Your task to perform on an android device: What's the weather going to be tomorrow? Image 0: 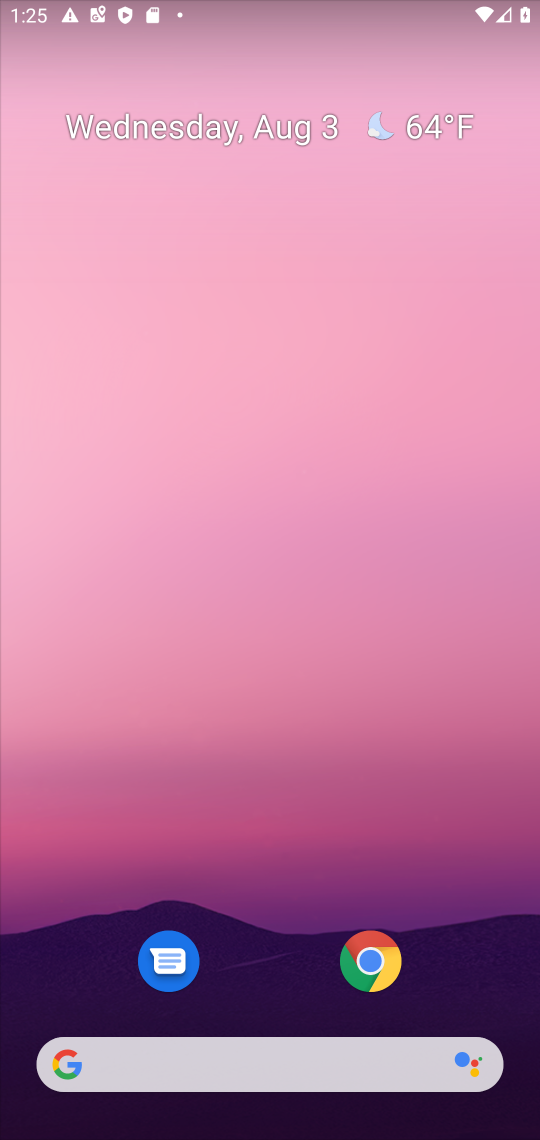
Step 0: click (214, 1058)
Your task to perform on an android device: What's the weather going to be tomorrow? Image 1: 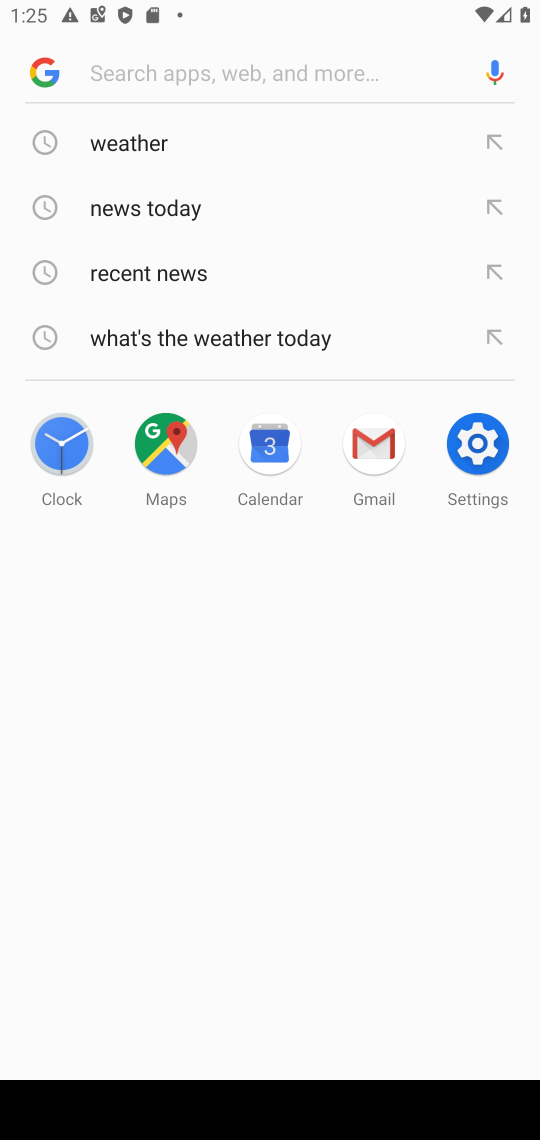
Step 1: click (115, 146)
Your task to perform on an android device: What's the weather going to be tomorrow? Image 2: 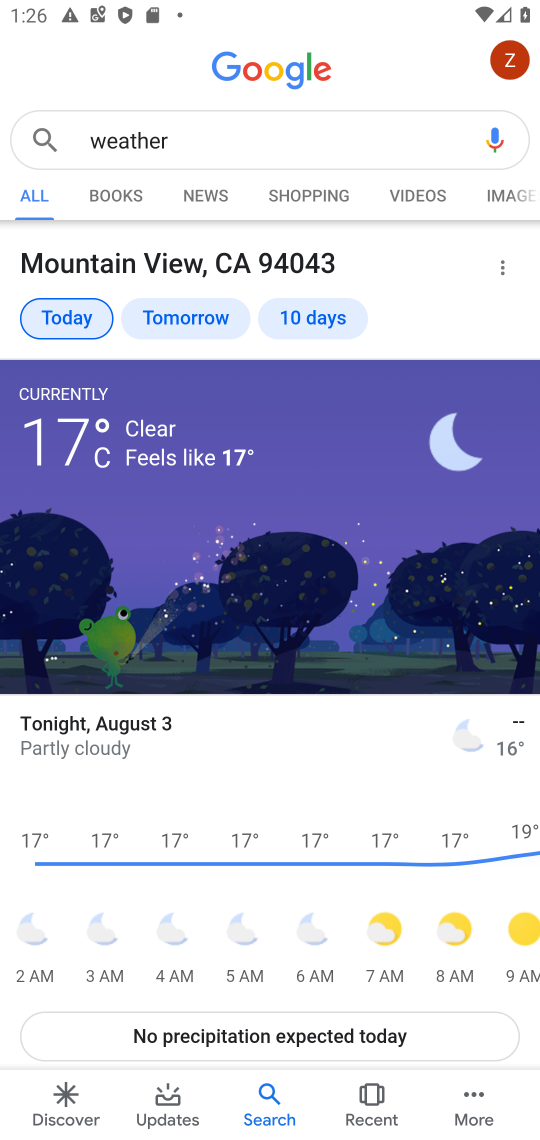
Step 2: click (180, 328)
Your task to perform on an android device: What's the weather going to be tomorrow? Image 3: 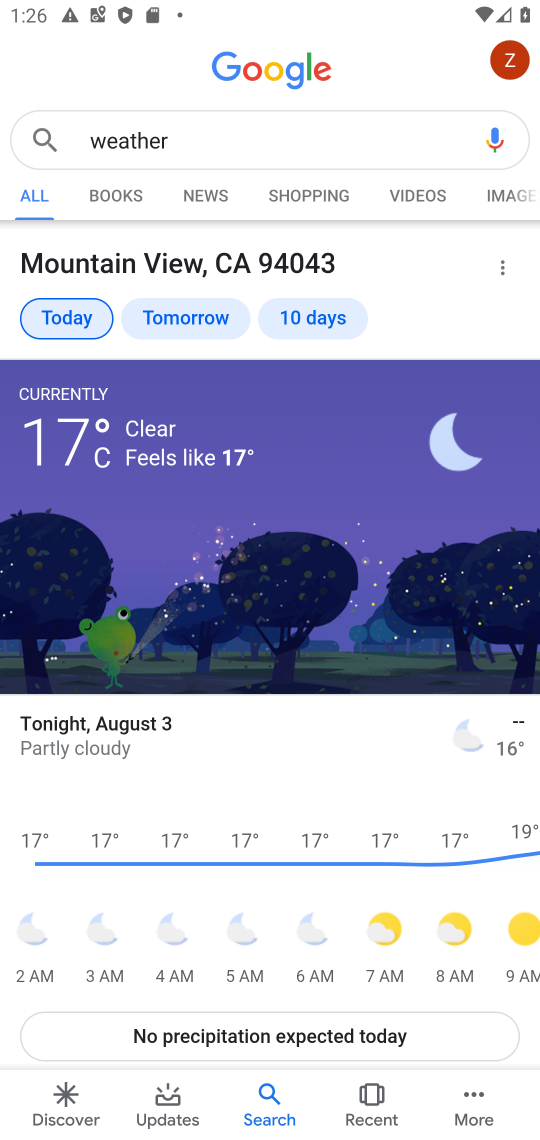
Step 3: click (180, 325)
Your task to perform on an android device: What's the weather going to be tomorrow? Image 4: 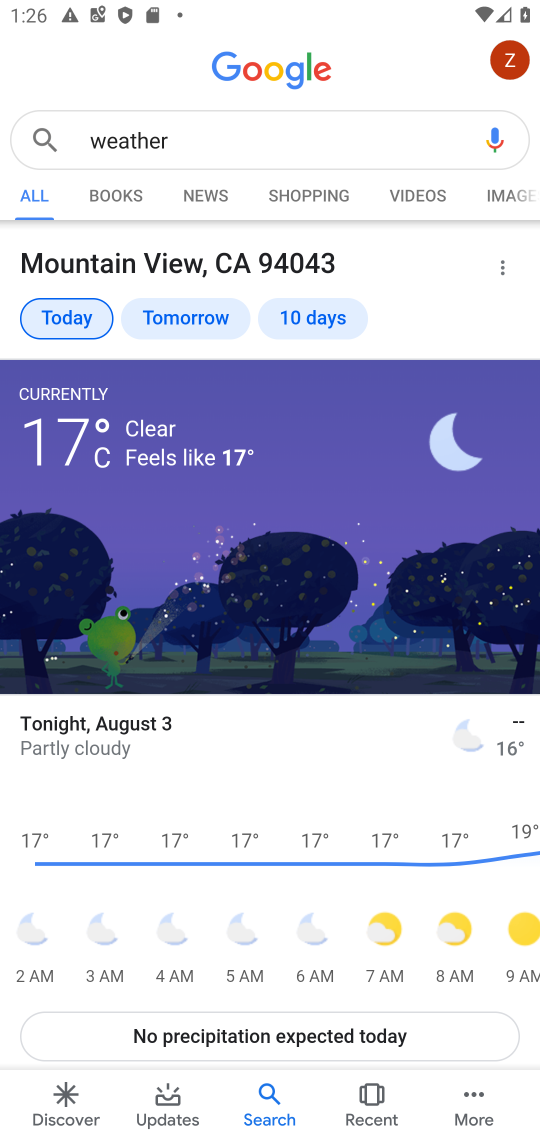
Step 4: click (185, 317)
Your task to perform on an android device: What's the weather going to be tomorrow? Image 5: 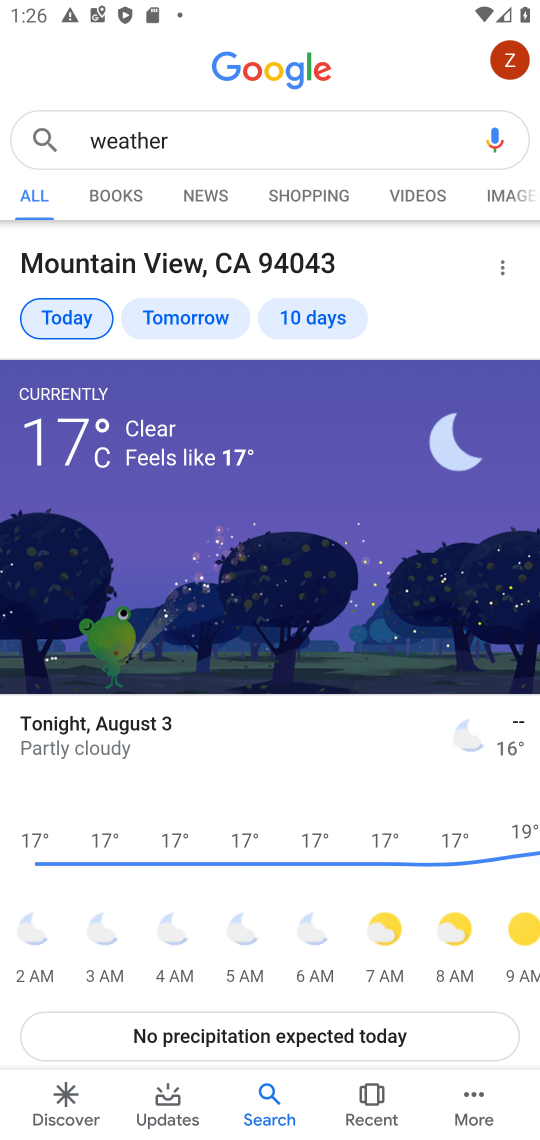
Step 5: drag from (262, 743) to (333, 363)
Your task to perform on an android device: What's the weather going to be tomorrow? Image 6: 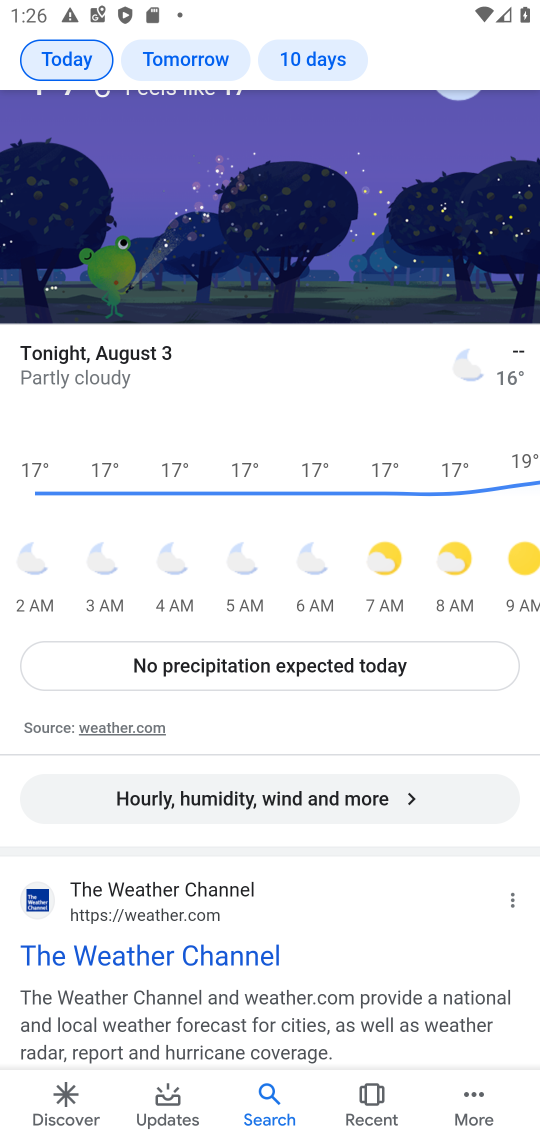
Step 6: drag from (243, 289) to (290, 1028)
Your task to perform on an android device: What's the weather going to be tomorrow? Image 7: 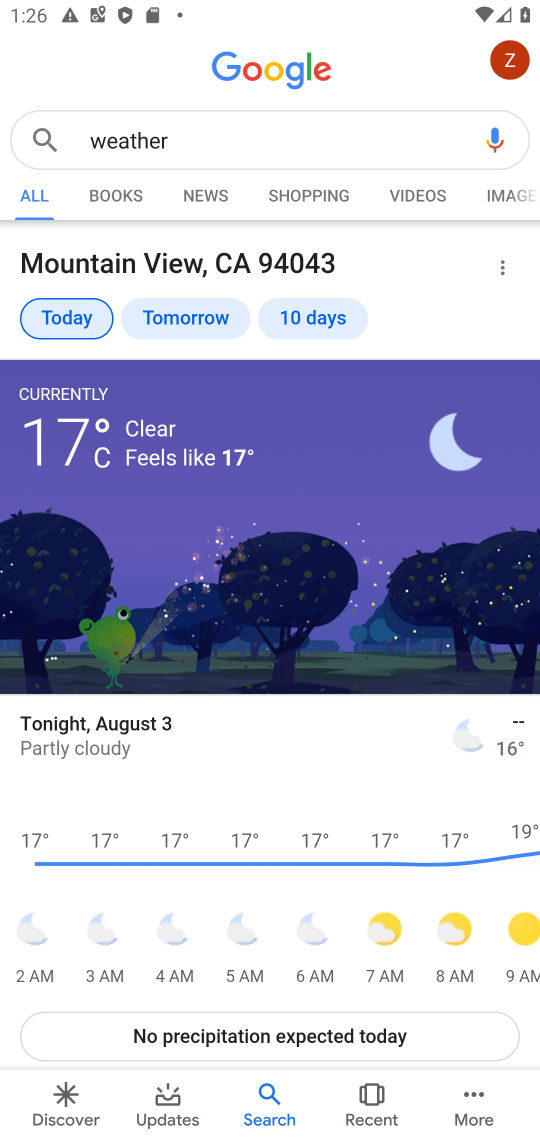
Step 7: click (178, 322)
Your task to perform on an android device: What's the weather going to be tomorrow? Image 8: 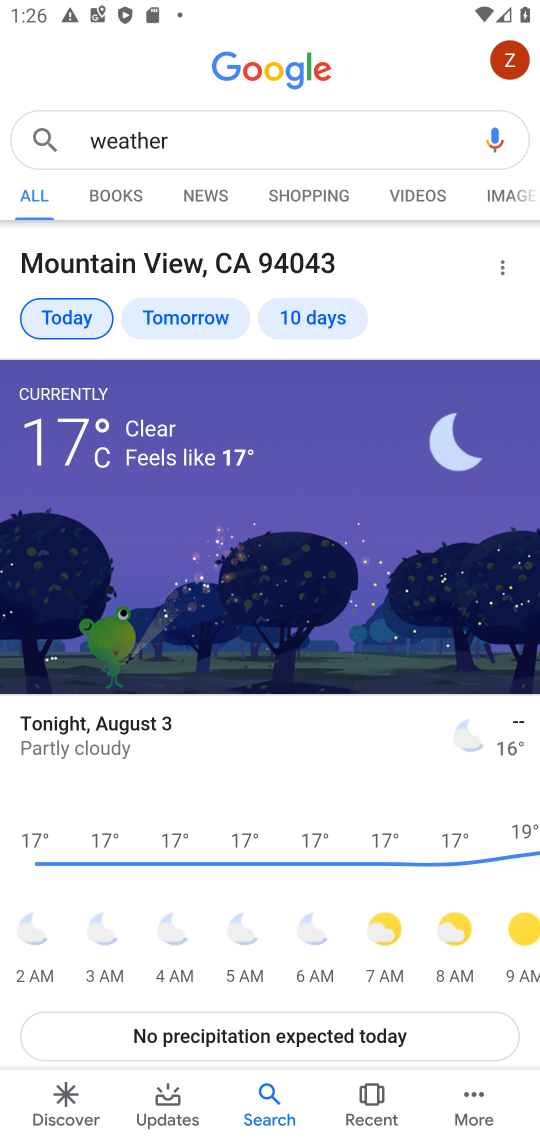
Step 8: click (178, 322)
Your task to perform on an android device: What's the weather going to be tomorrow? Image 9: 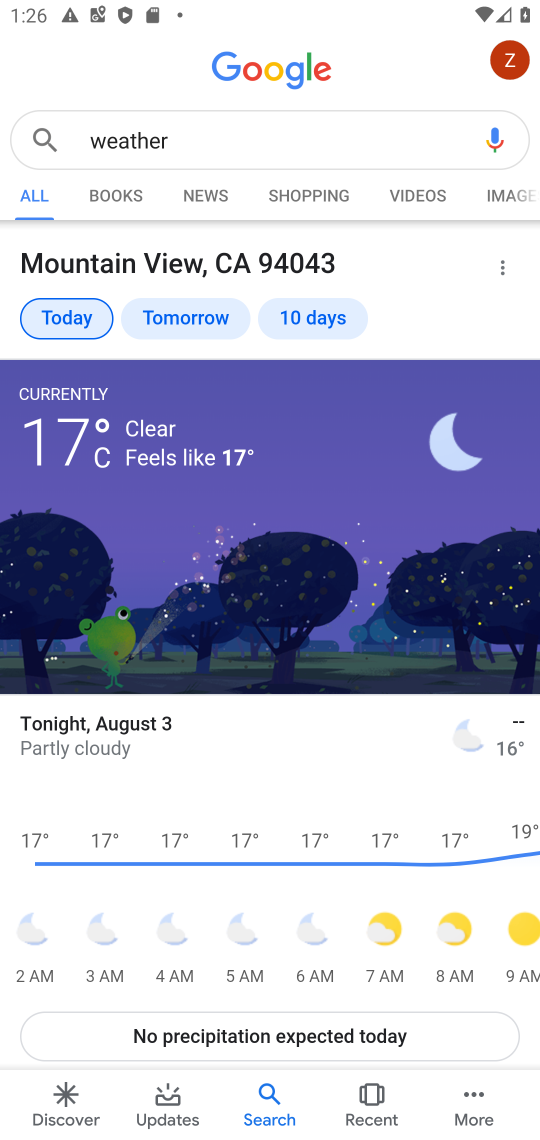
Step 9: click (178, 322)
Your task to perform on an android device: What's the weather going to be tomorrow? Image 10: 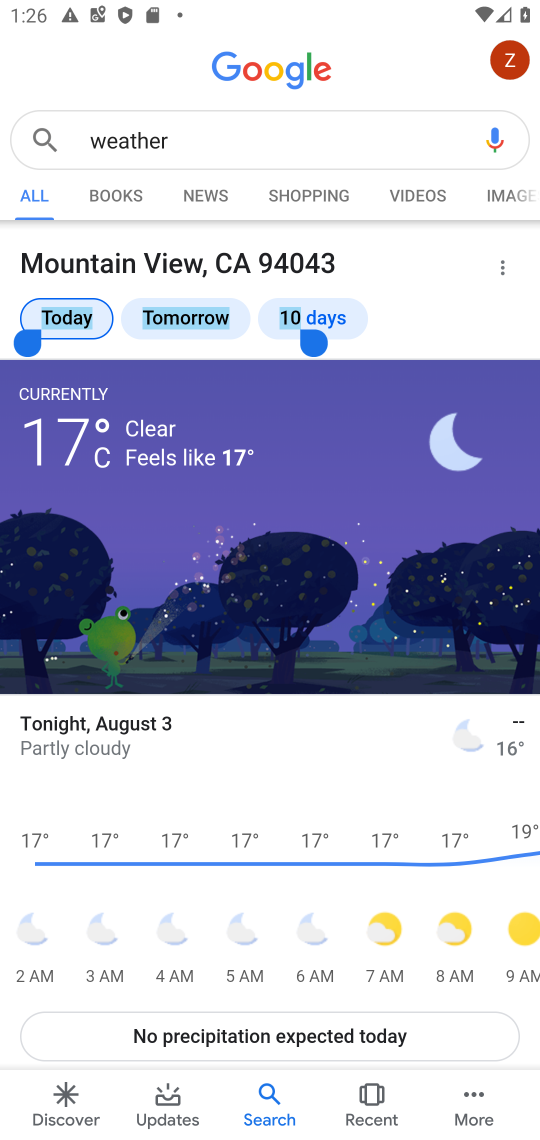
Step 10: click (178, 321)
Your task to perform on an android device: What's the weather going to be tomorrow? Image 11: 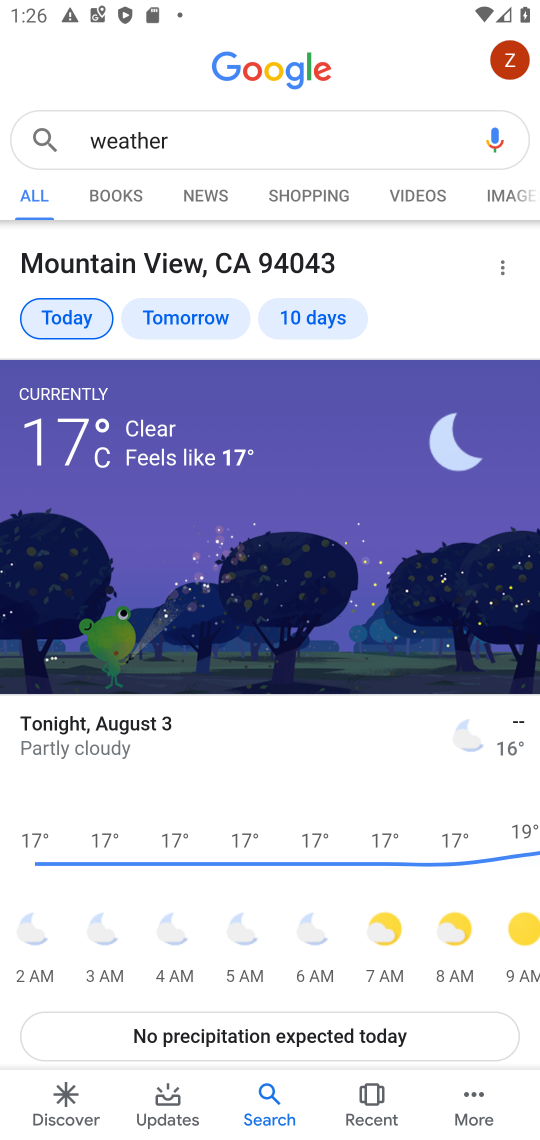
Step 11: click (432, 327)
Your task to perform on an android device: What's the weather going to be tomorrow? Image 12: 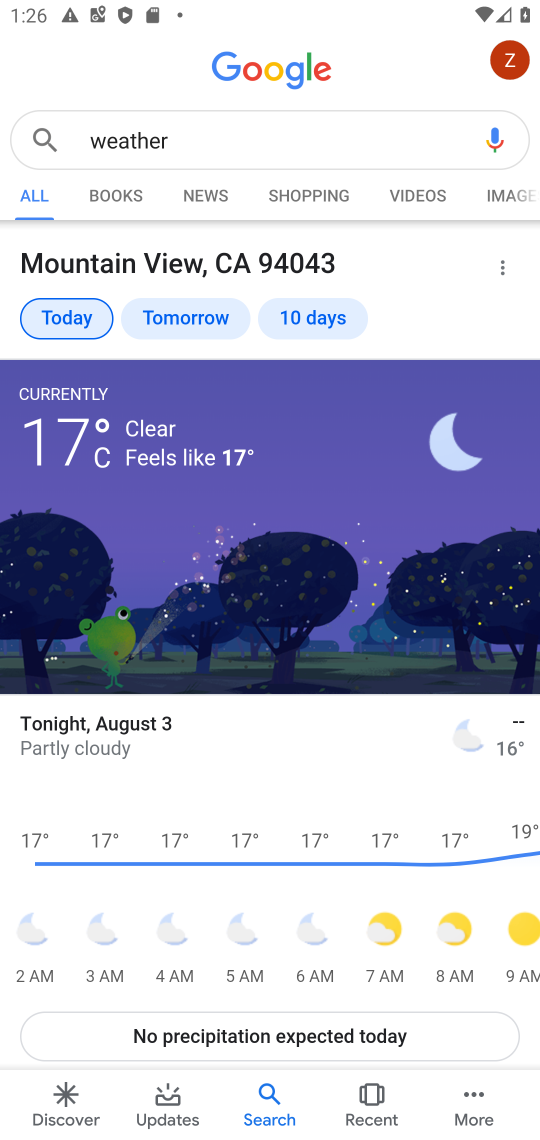
Step 12: click (226, 319)
Your task to perform on an android device: What's the weather going to be tomorrow? Image 13: 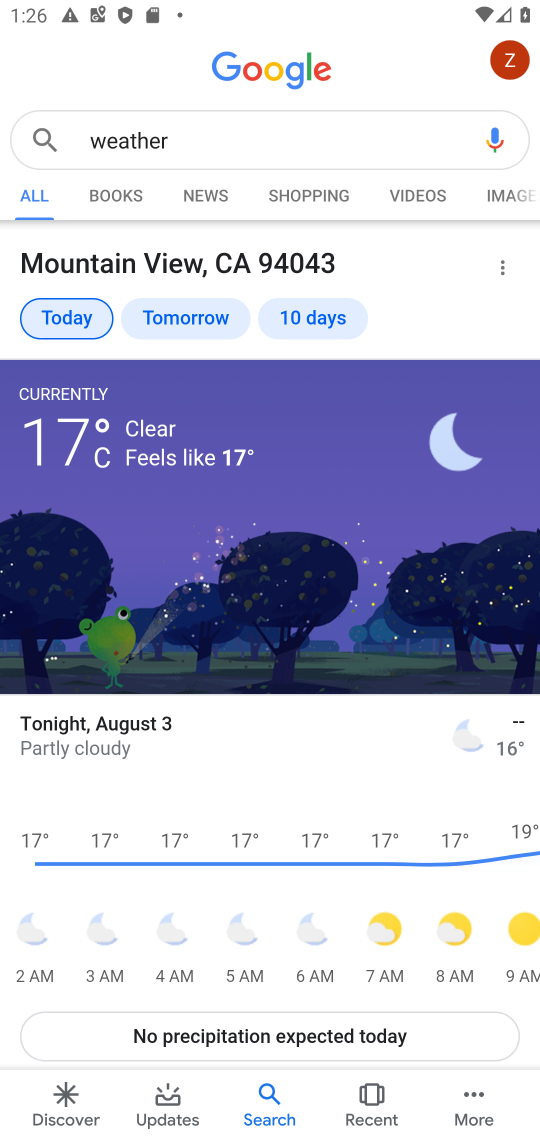
Step 13: task complete